Your task to perform on an android device: see tabs open on other devices in the chrome app Image 0: 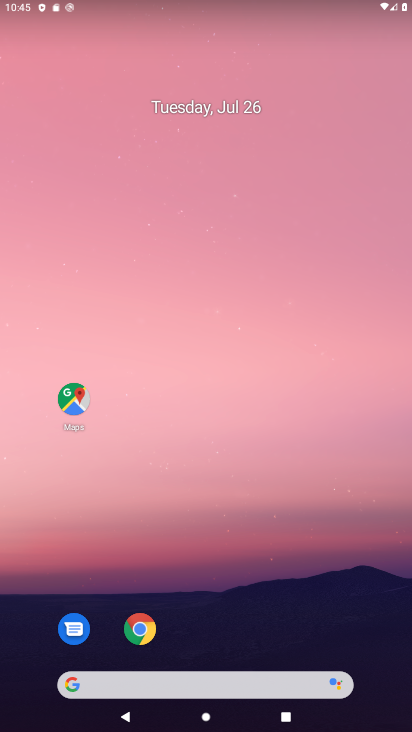
Step 0: click (146, 627)
Your task to perform on an android device: see tabs open on other devices in the chrome app Image 1: 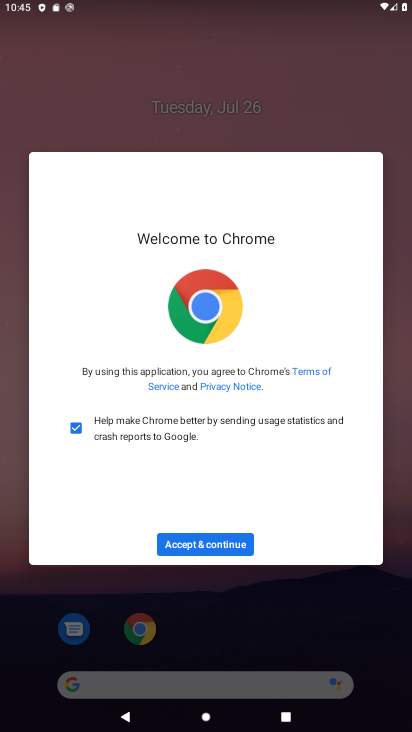
Step 1: click (220, 545)
Your task to perform on an android device: see tabs open on other devices in the chrome app Image 2: 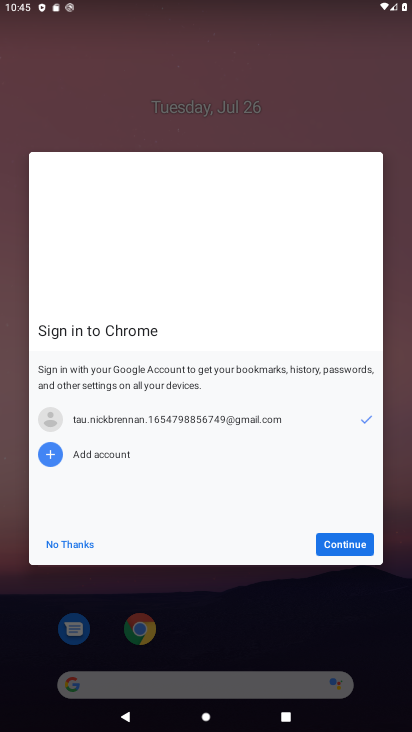
Step 2: click (325, 544)
Your task to perform on an android device: see tabs open on other devices in the chrome app Image 3: 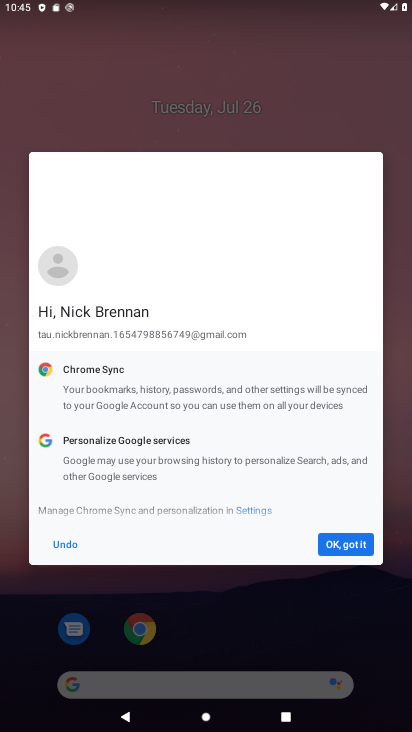
Step 3: click (343, 551)
Your task to perform on an android device: see tabs open on other devices in the chrome app Image 4: 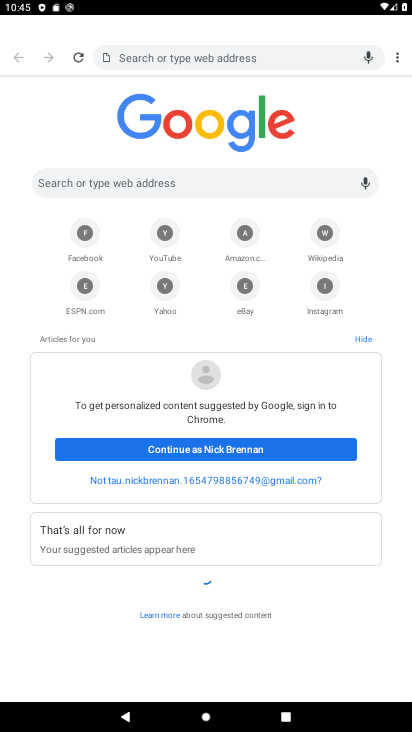
Step 4: click (395, 62)
Your task to perform on an android device: see tabs open on other devices in the chrome app Image 5: 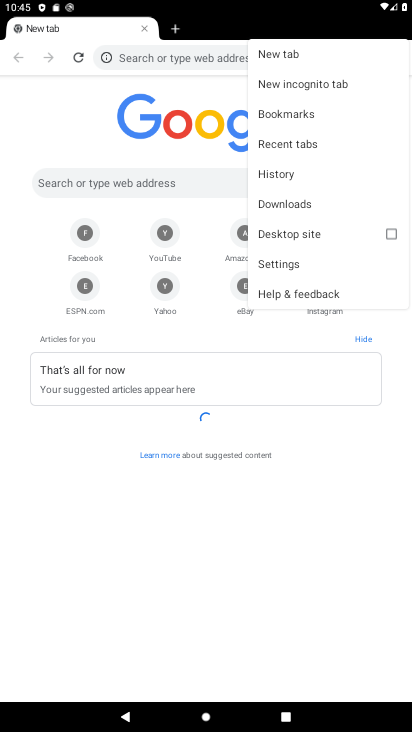
Step 5: click (315, 145)
Your task to perform on an android device: see tabs open on other devices in the chrome app Image 6: 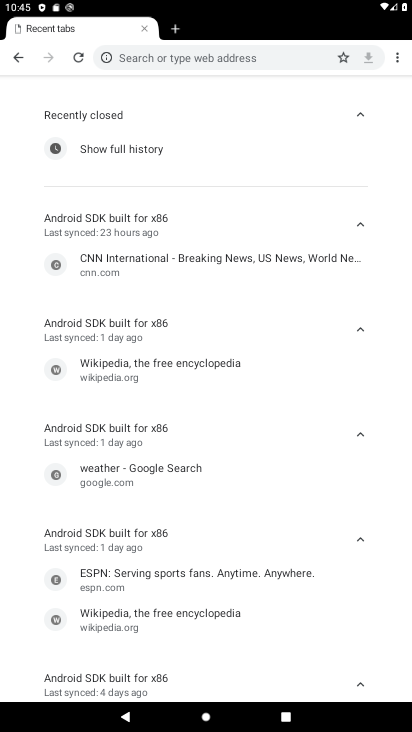
Step 6: task complete